Your task to perform on an android device: Clear all items from cart on ebay.com. Search for corsair k70 on ebay.com, select the first entry, add it to the cart, then select checkout. Image 0: 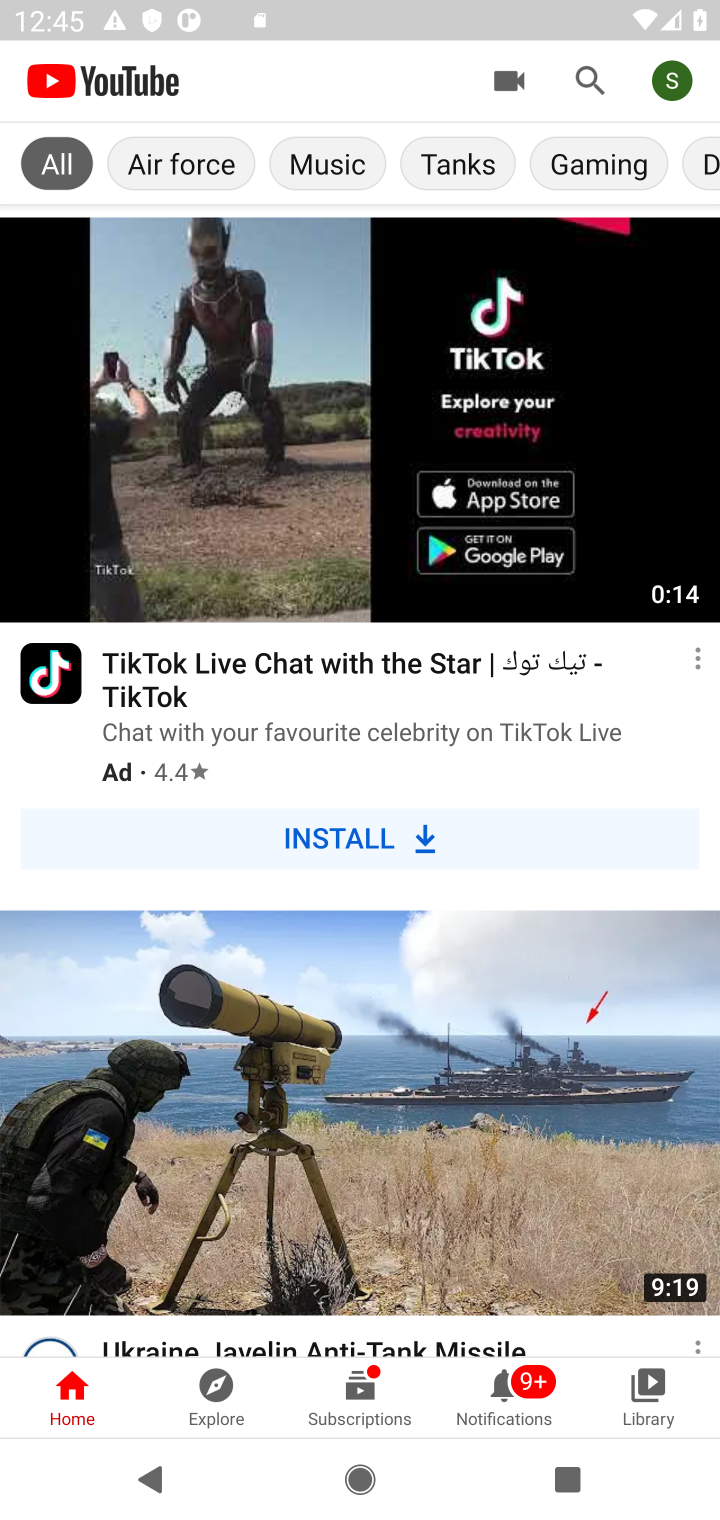
Step 0: press home button
Your task to perform on an android device: Clear all items from cart on ebay.com. Search for corsair k70 on ebay.com, select the first entry, add it to the cart, then select checkout. Image 1: 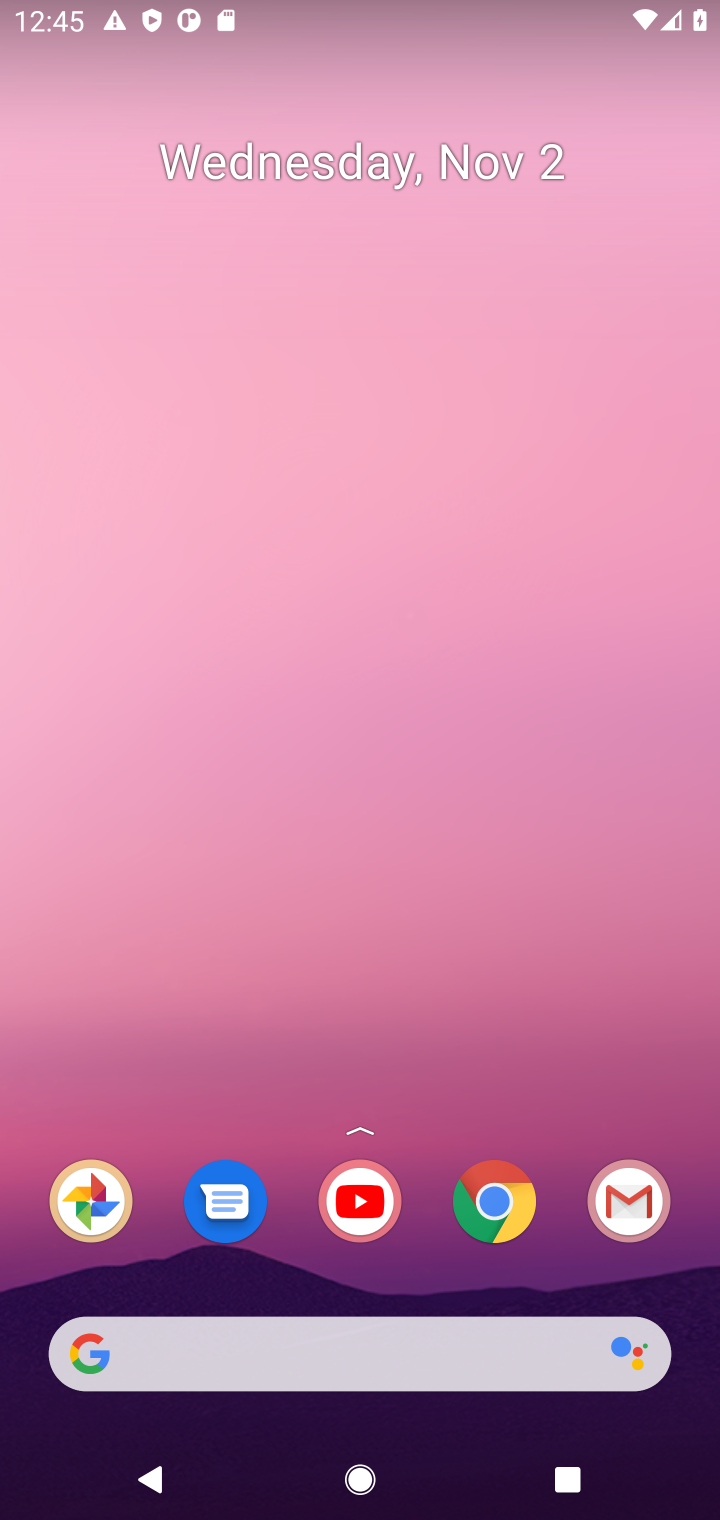
Step 1: drag from (453, 607) to (480, 423)
Your task to perform on an android device: Clear all items from cart on ebay.com. Search for corsair k70 on ebay.com, select the first entry, add it to the cart, then select checkout. Image 2: 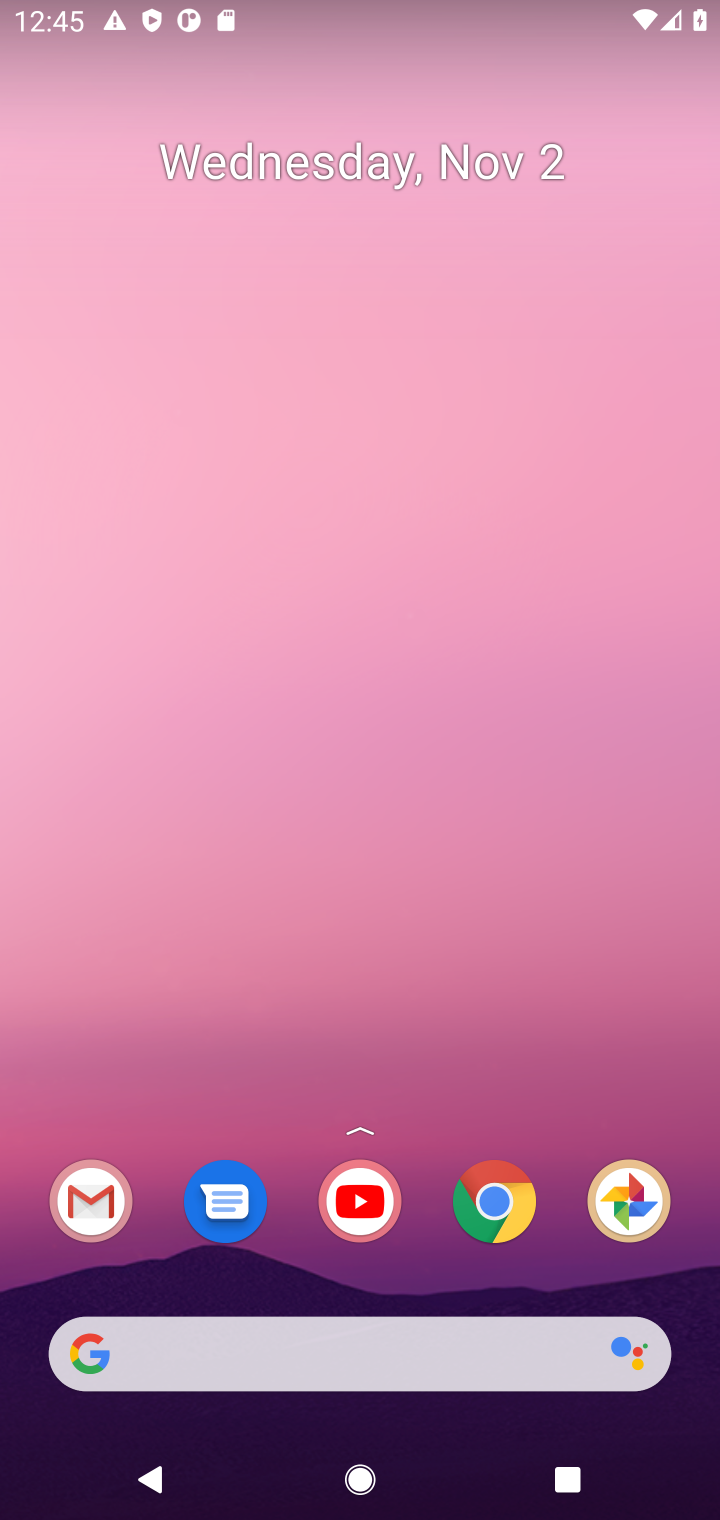
Step 2: drag from (391, 1298) to (424, 19)
Your task to perform on an android device: Clear all items from cart on ebay.com. Search for corsair k70 on ebay.com, select the first entry, add it to the cart, then select checkout. Image 3: 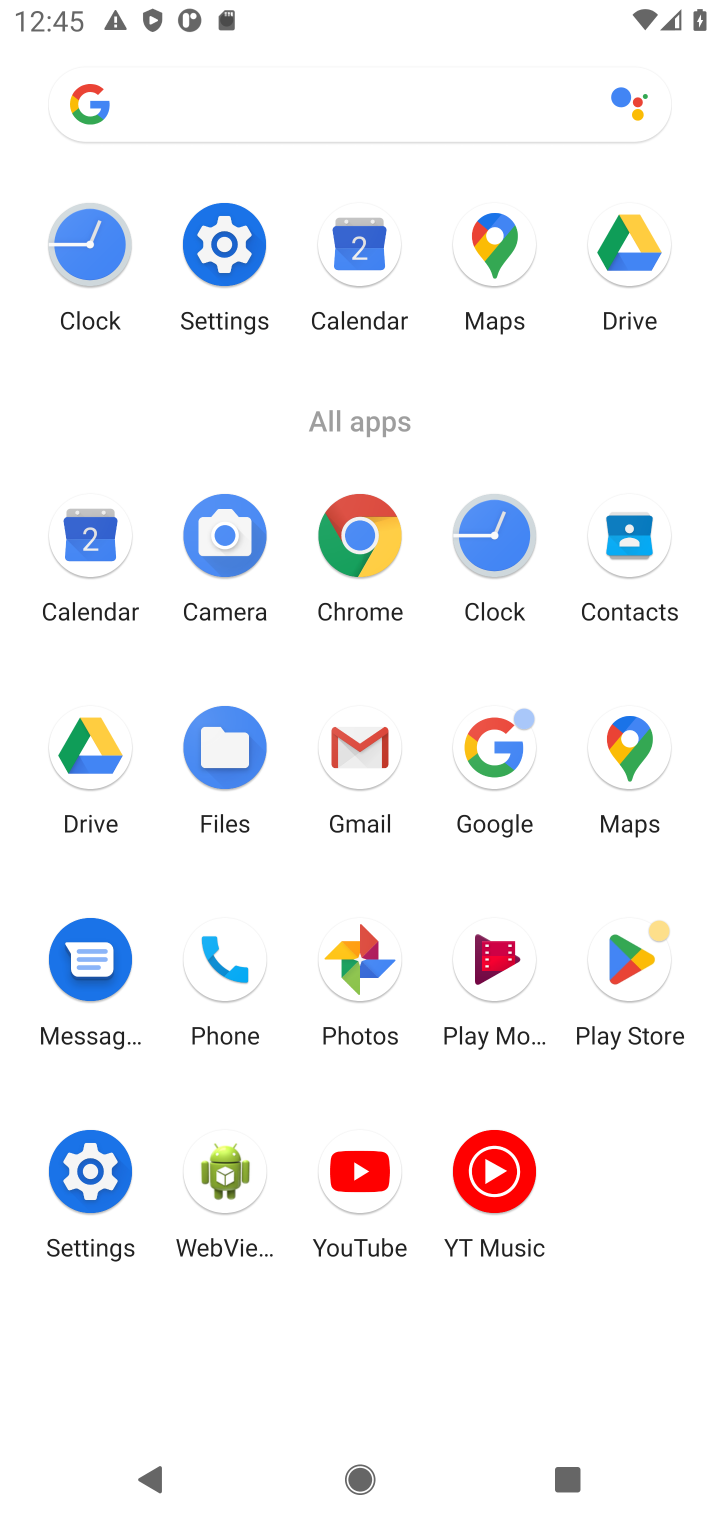
Step 3: click (482, 748)
Your task to perform on an android device: Clear all items from cart on ebay.com. Search for corsair k70 on ebay.com, select the first entry, add it to the cart, then select checkout. Image 4: 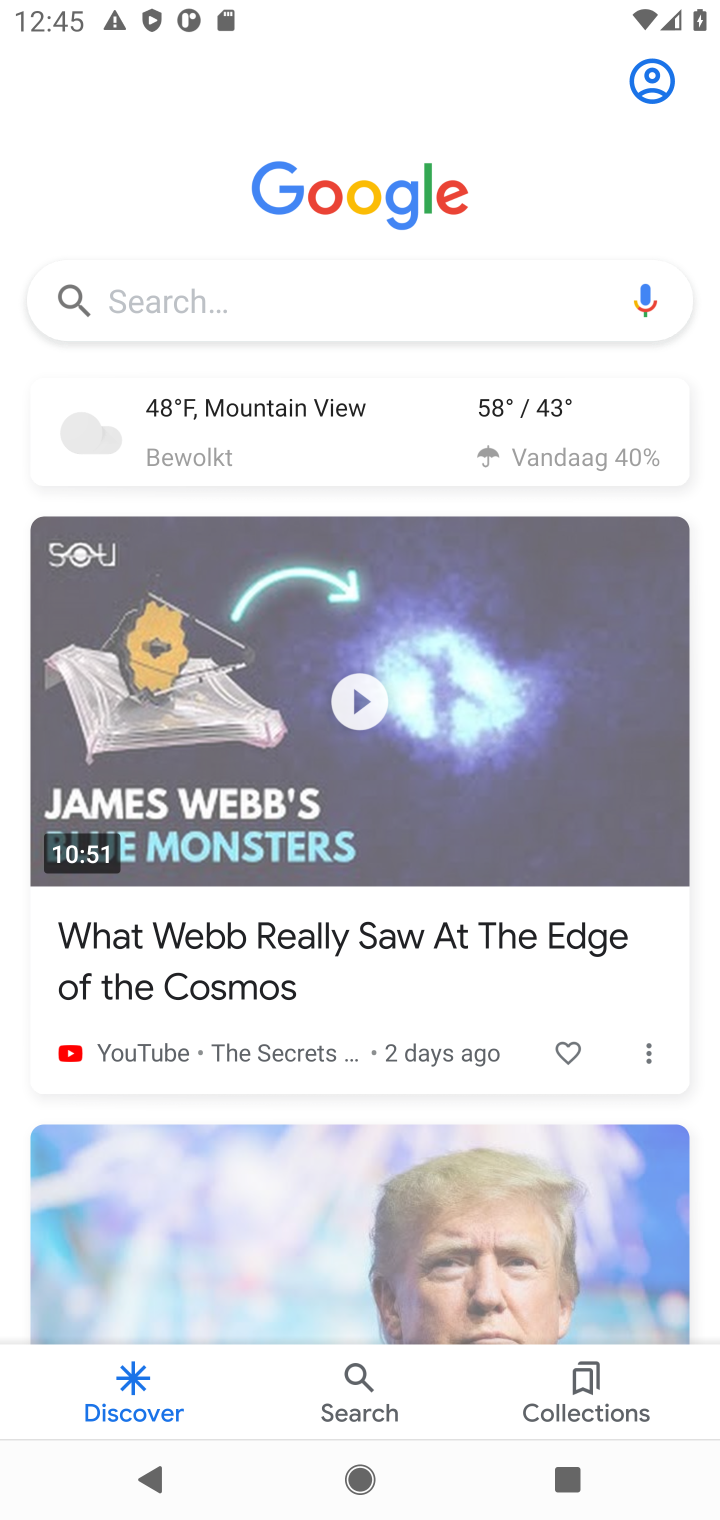
Step 4: click (274, 310)
Your task to perform on an android device: Clear all items from cart on ebay.com. Search for corsair k70 on ebay.com, select the first entry, add it to the cart, then select checkout. Image 5: 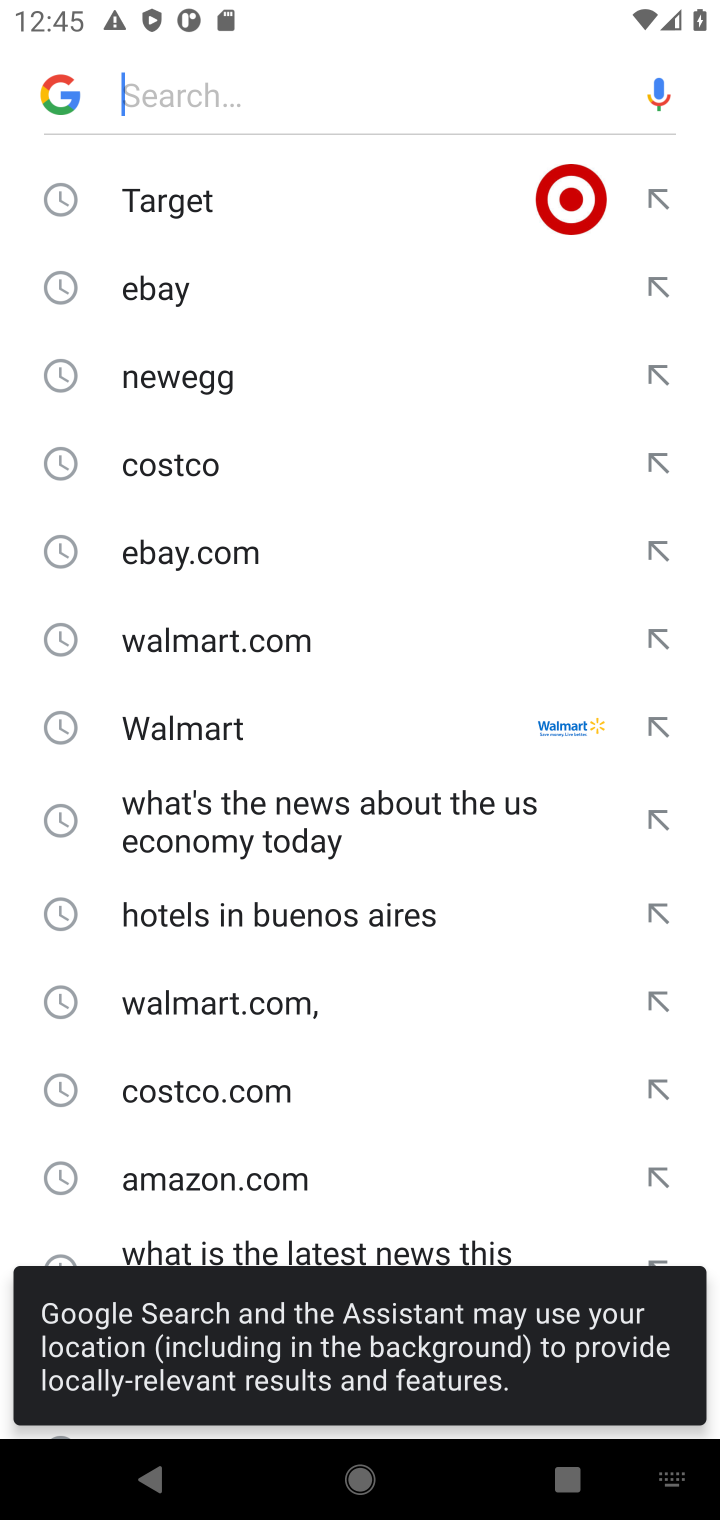
Step 5: click (157, 293)
Your task to perform on an android device: Clear all items from cart on ebay.com. Search for corsair k70 on ebay.com, select the first entry, add it to the cart, then select checkout. Image 6: 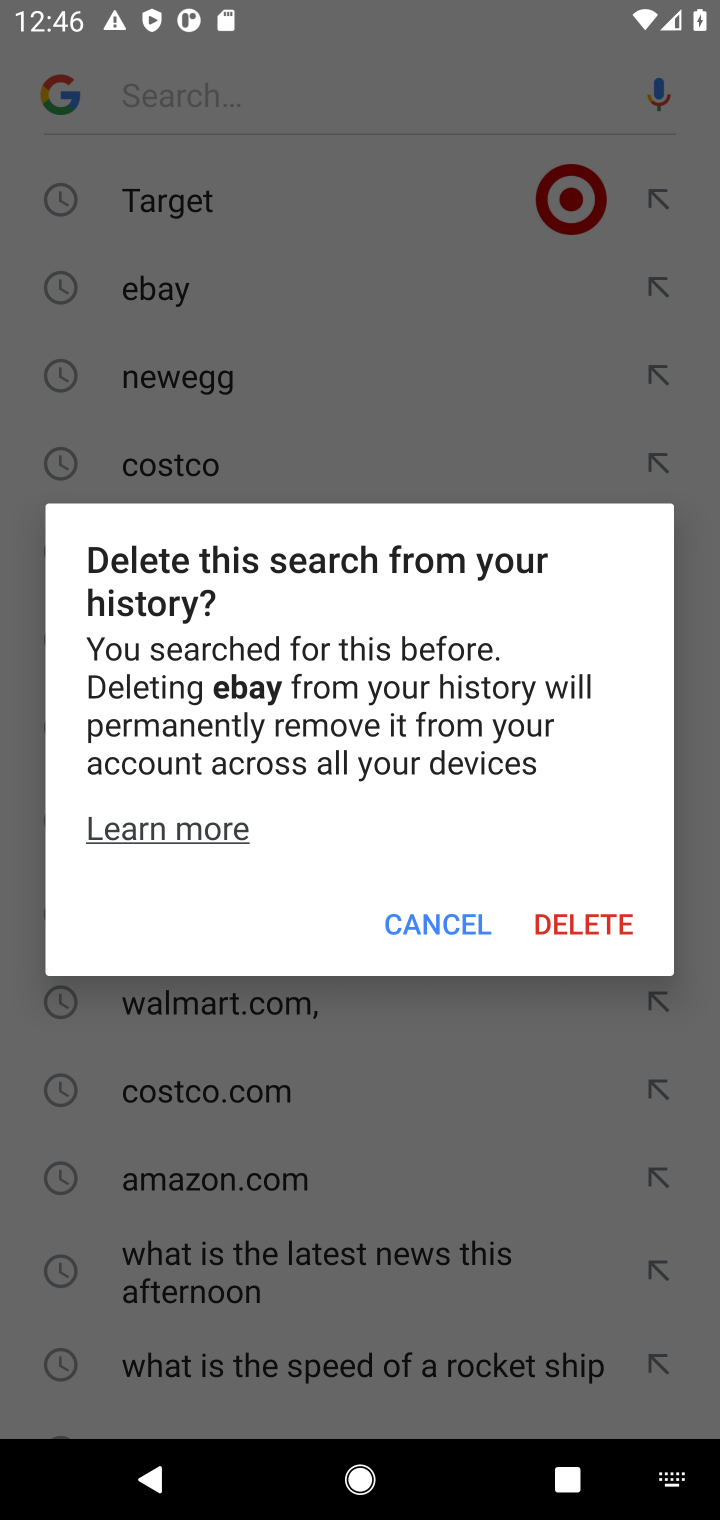
Step 6: click (451, 911)
Your task to perform on an android device: Clear all items from cart on ebay.com. Search for corsair k70 on ebay.com, select the first entry, add it to the cart, then select checkout. Image 7: 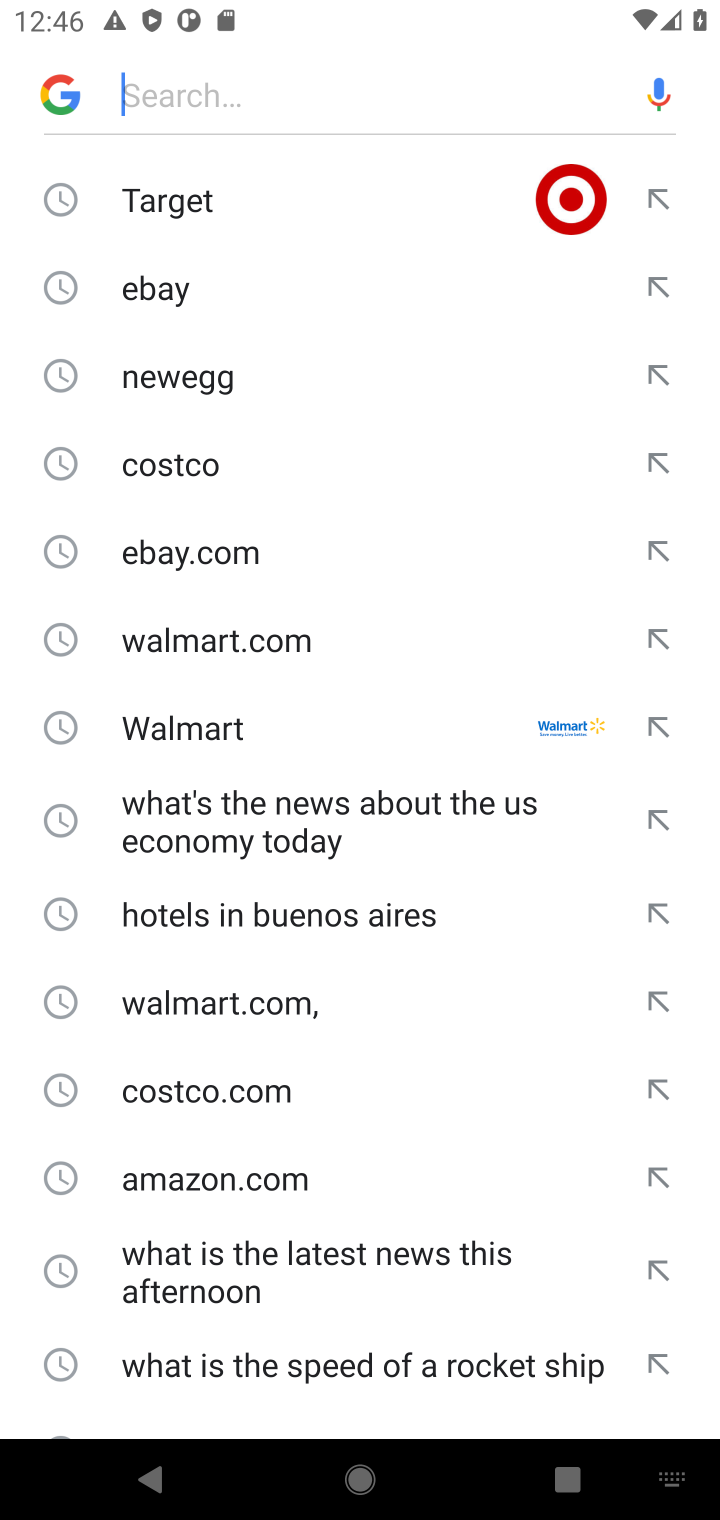
Step 7: click (660, 281)
Your task to perform on an android device: Clear all items from cart on ebay.com. Search for corsair k70 on ebay.com, select the first entry, add it to the cart, then select checkout. Image 8: 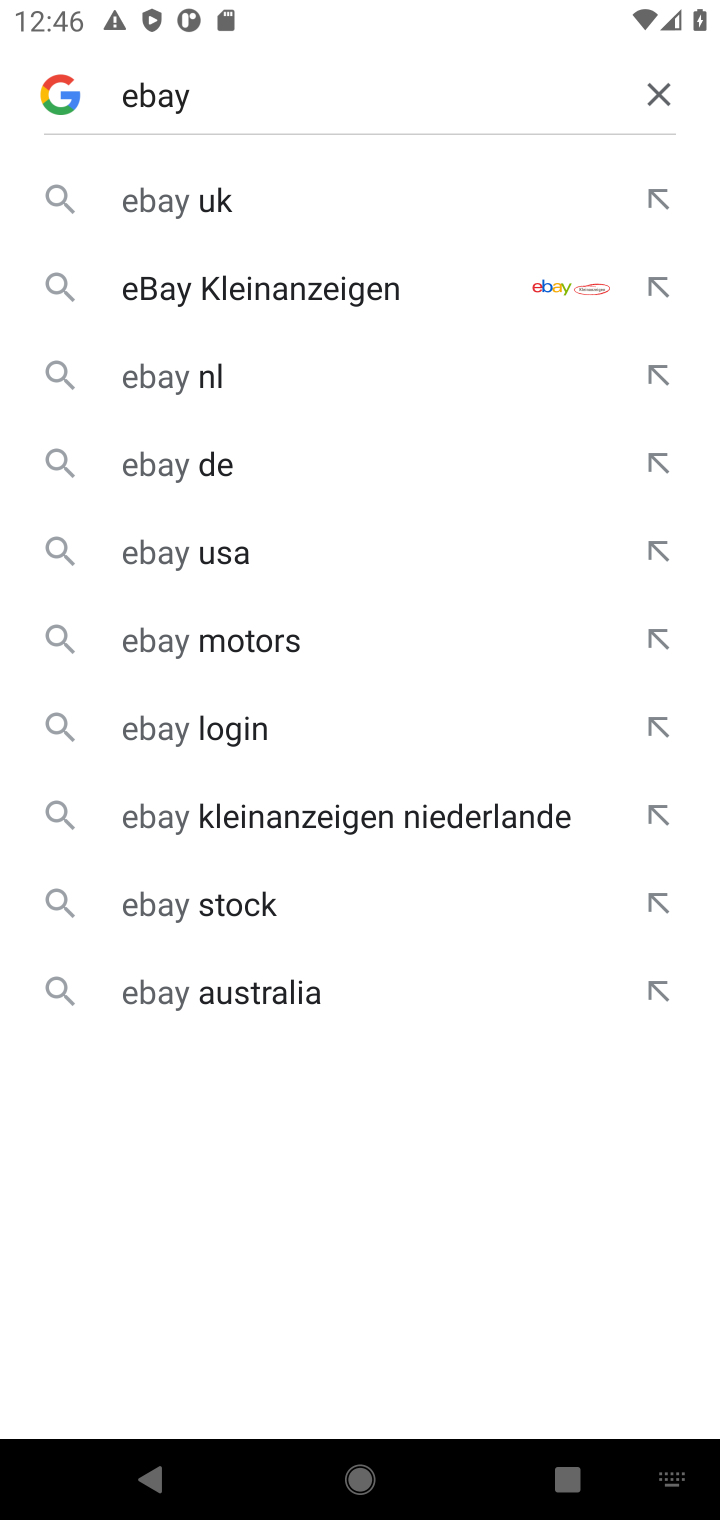
Step 8: click (138, 183)
Your task to perform on an android device: Clear all items from cart on ebay.com. Search for corsair k70 on ebay.com, select the first entry, add it to the cart, then select checkout. Image 9: 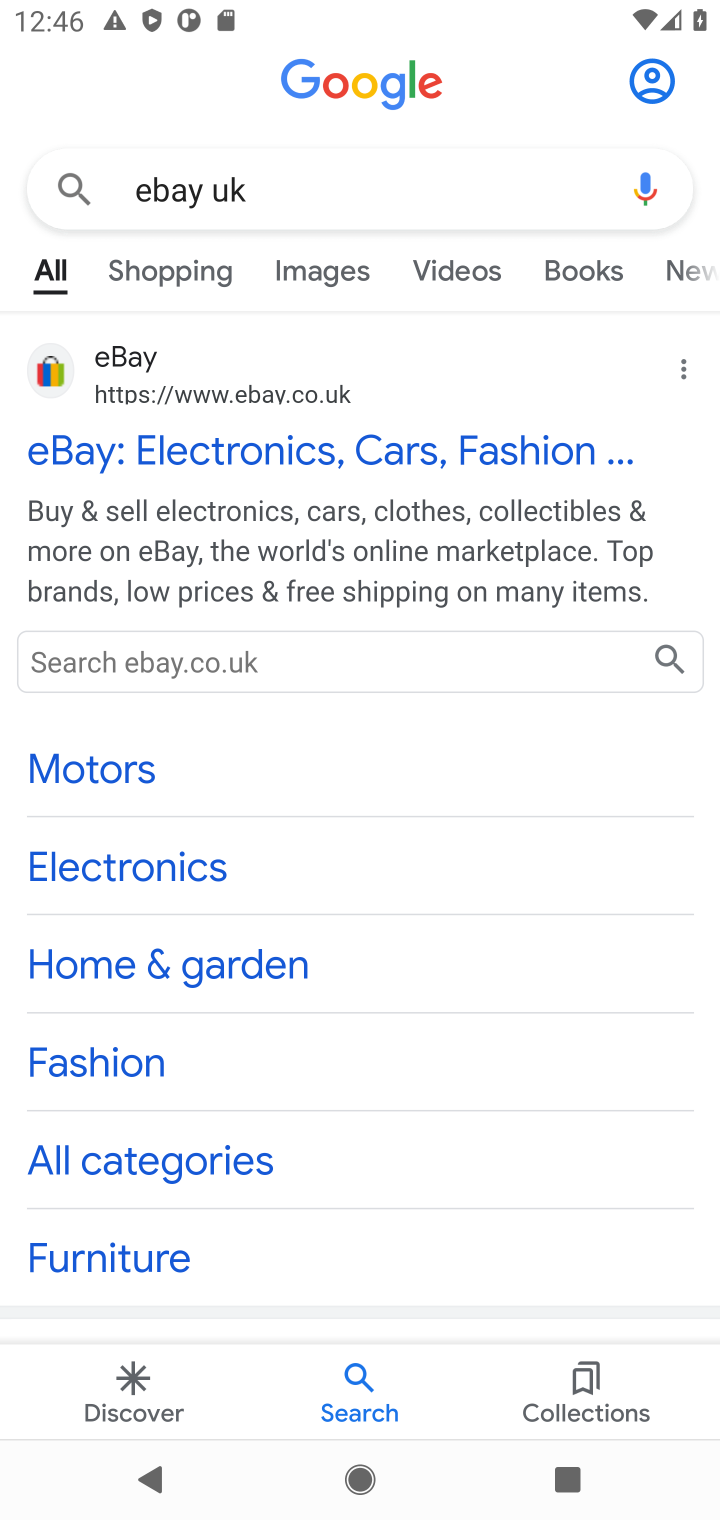
Step 9: click (156, 445)
Your task to perform on an android device: Clear all items from cart on ebay.com. Search for corsair k70 on ebay.com, select the first entry, add it to the cart, then select checkout. Image 10: 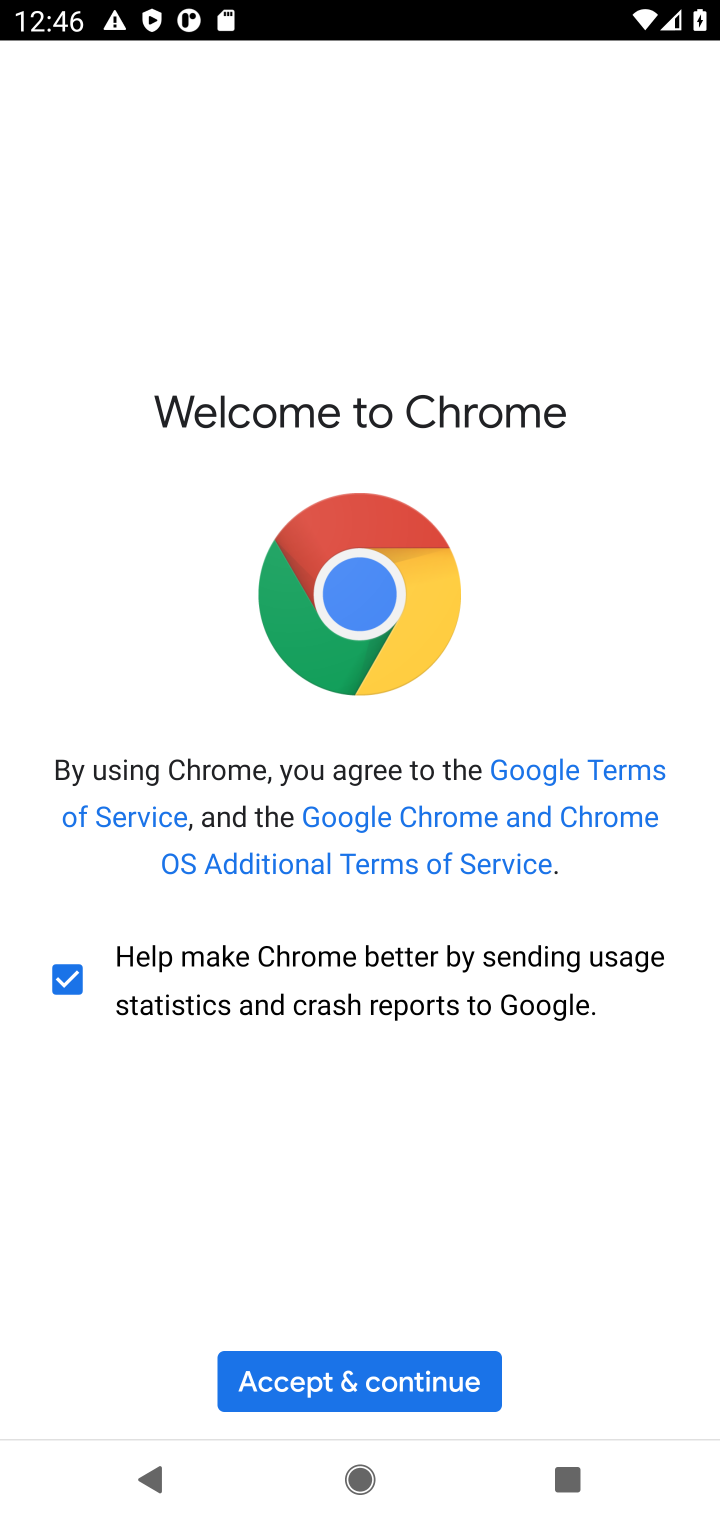
Step 10: click (340, 1369)
Your task to perform on an android device: Clear all items from cart on ebay.com. Search for corsair k70 on ebay.com, select the first entry, add it to the cart, then select checkout. Image 11: 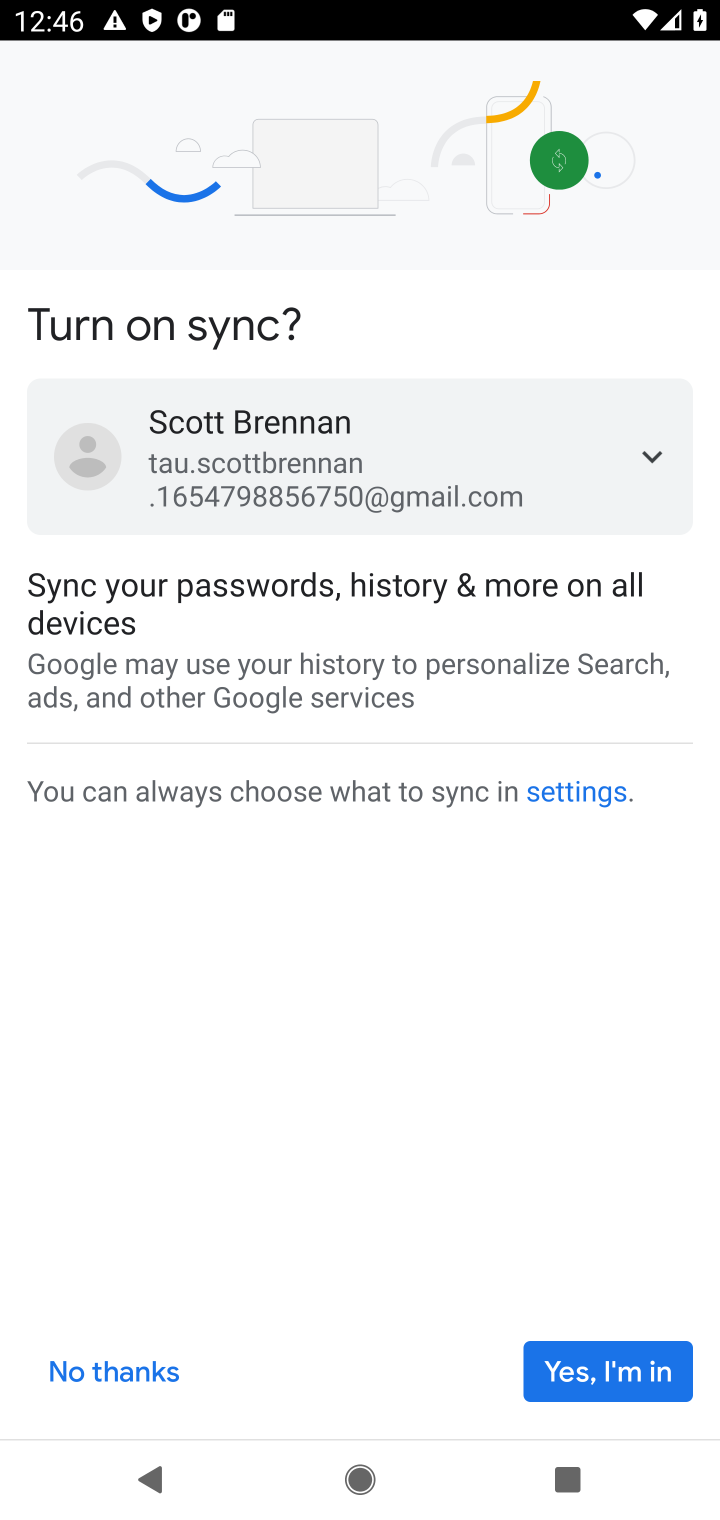
Step 11: click (582, 1356)
Your task to perform on an android device: Clear all items from cart on ebay.com. Search for corsair k70 on ebay.com, select the first entry, add it to the cart, then select checkout. Image 12: 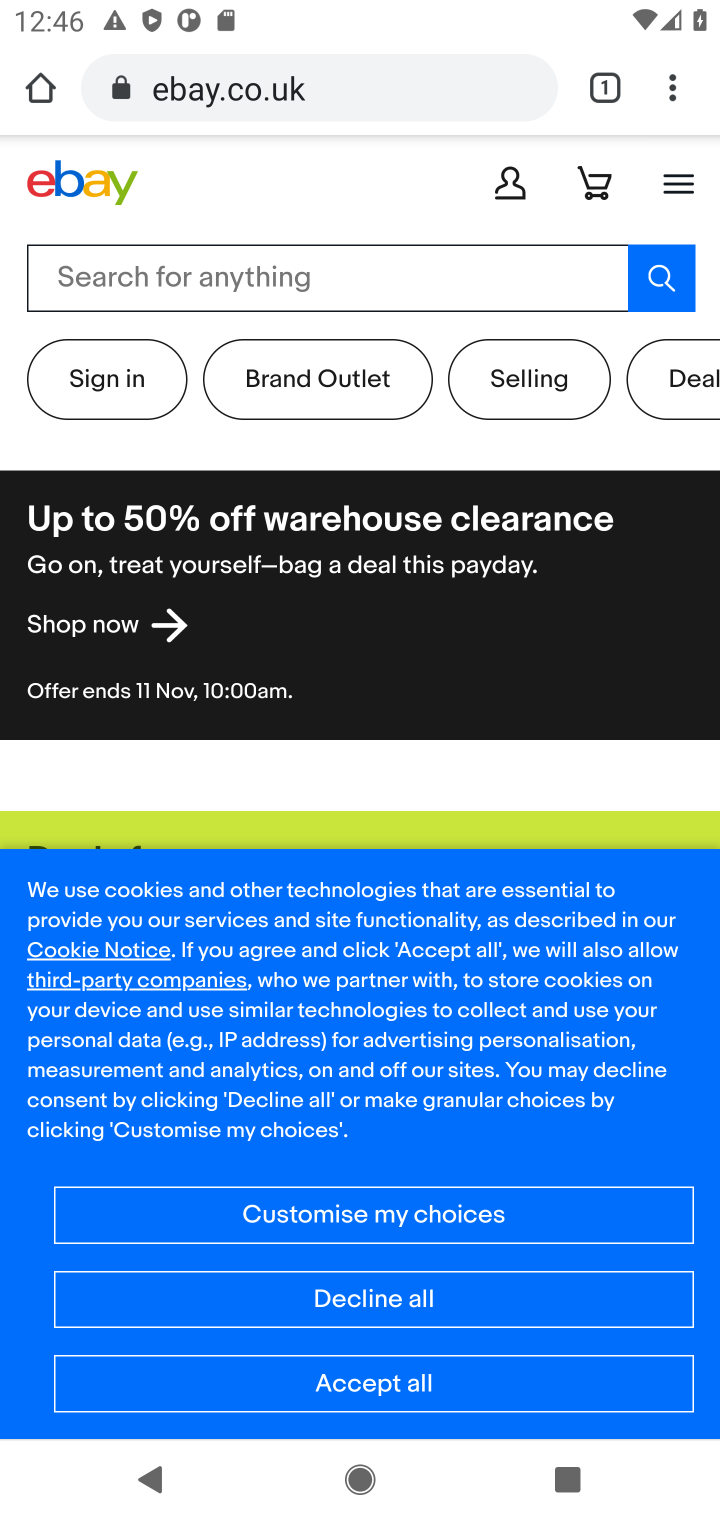
Step 12: click (90, 254)
Your task to perform on an android device: Clear all items from cart on ebay.com. Search for corsair k70 on ebay.com, select the first entry, add it to the cart, then select checkout. Image 13: 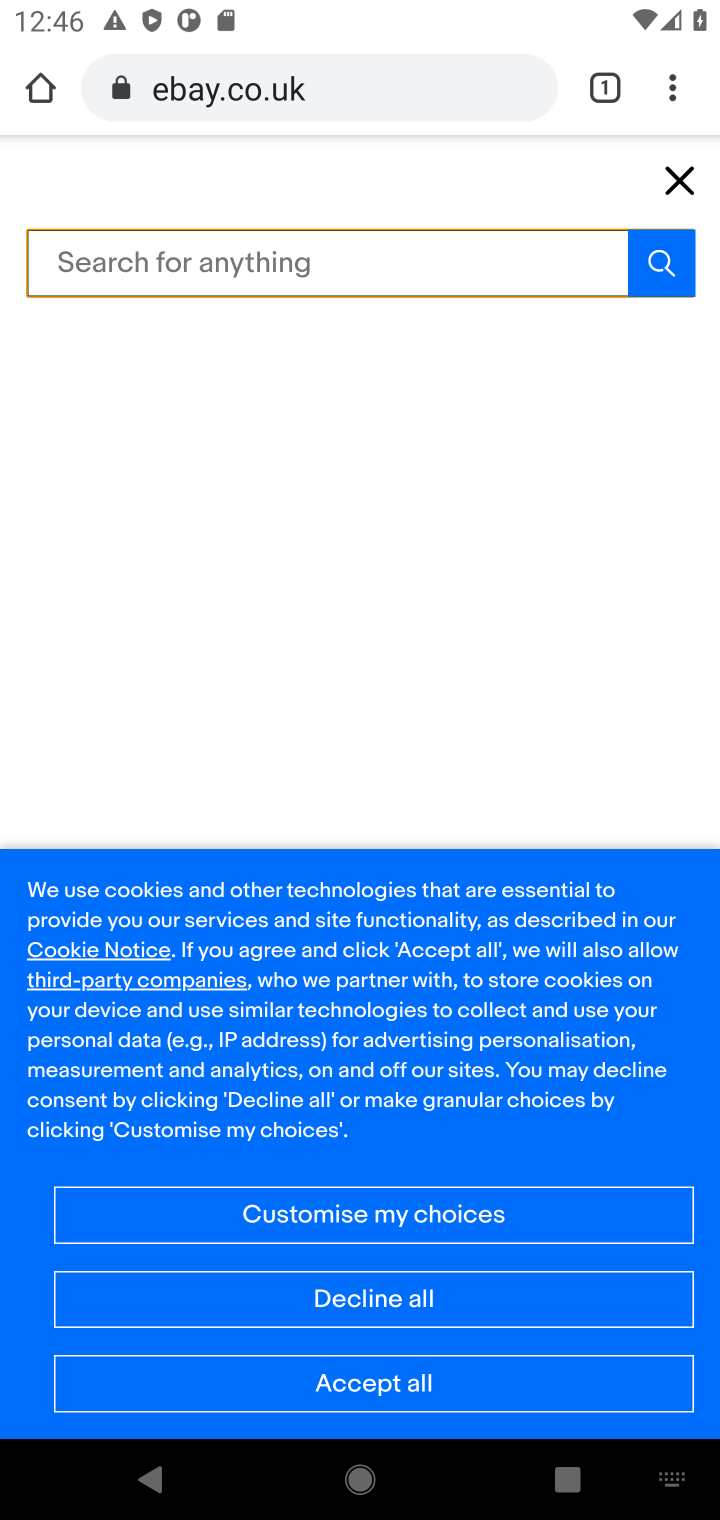
Step 13: type "corsair k70"
Your task to perform on an android device: Clear all items from cart on ebay.com. Search for corsair k70 on ebay.com, select the first entry, add it to the cart, then select checkout. Image 14: 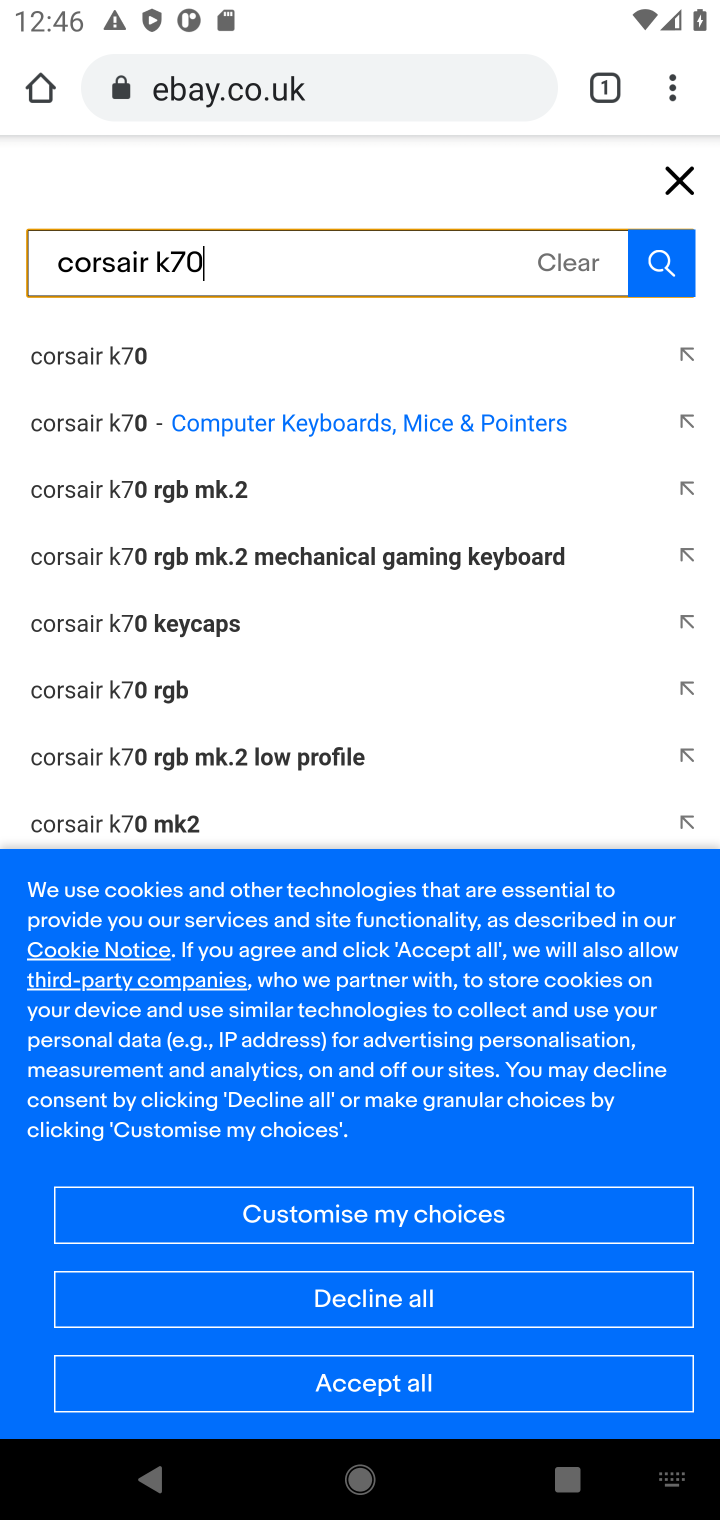
Step 14: click (56, 358)
Your task to perform on an android device: Clear all items from cart on ebay.com. Search for corsair k70 on ebay.com, select the first entry, add it to the cart, then select checkout. Image 15: 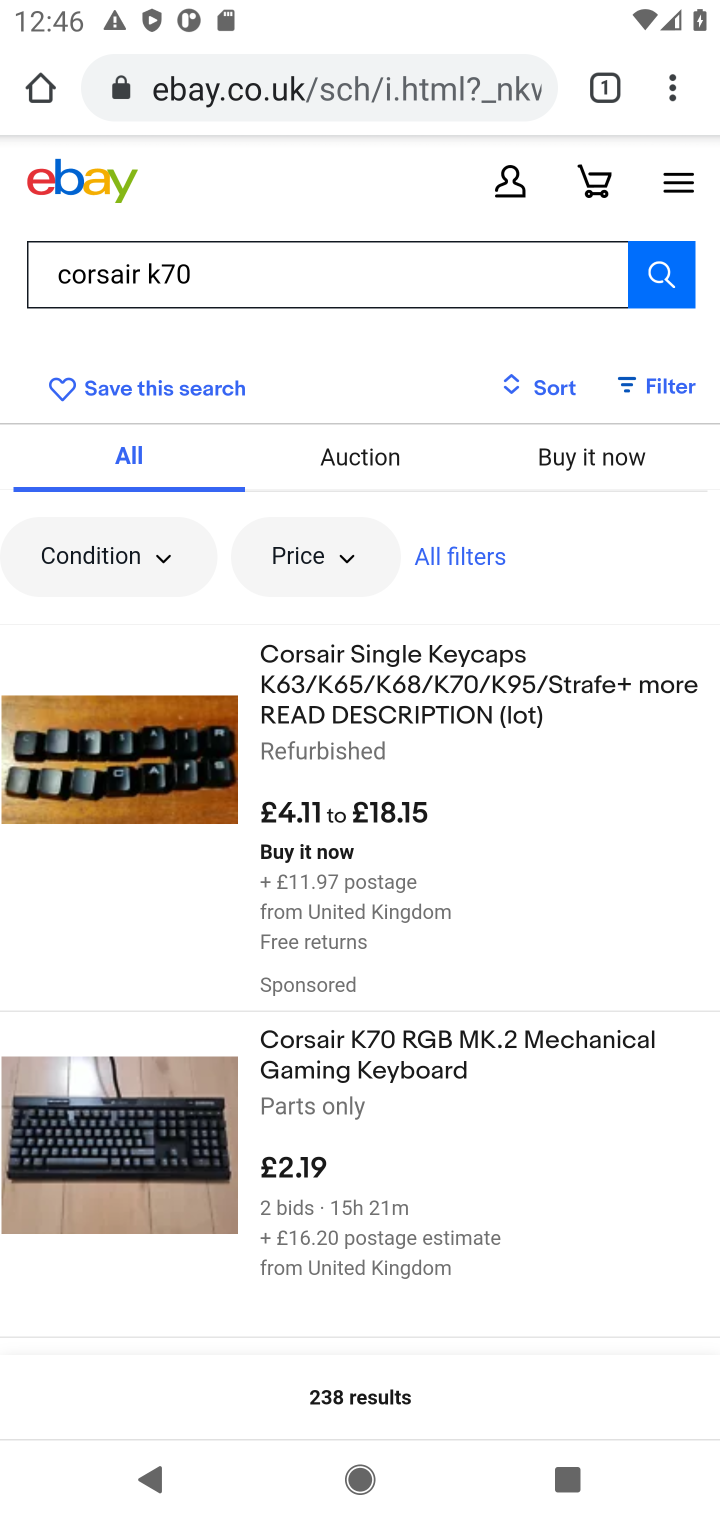
Step 15: click (113, 750)
Your task to perform on an android device: Clear all items from cart on ebay.com. Search for corsair k70 on ebay.com, select the first entry, add it to the cart, then select checkout. Image 16: 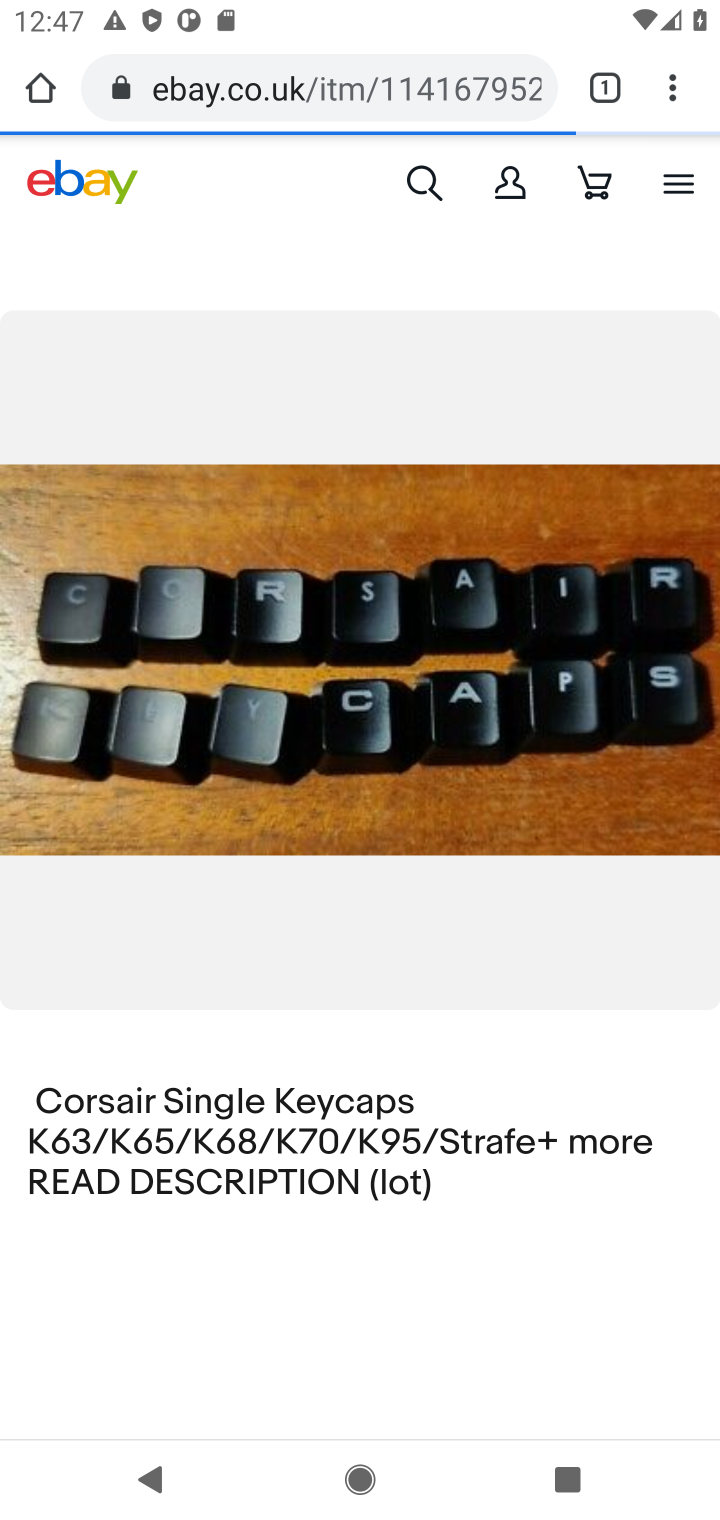
Step 16: drag from (376, 1240) to (263, 600)
Your task to perform on an android device: Clear all items from cart on ebay.com. Search for corsair k70 on ebay.com, select the first entry, add it to the cart, then select checkout. Image 17: 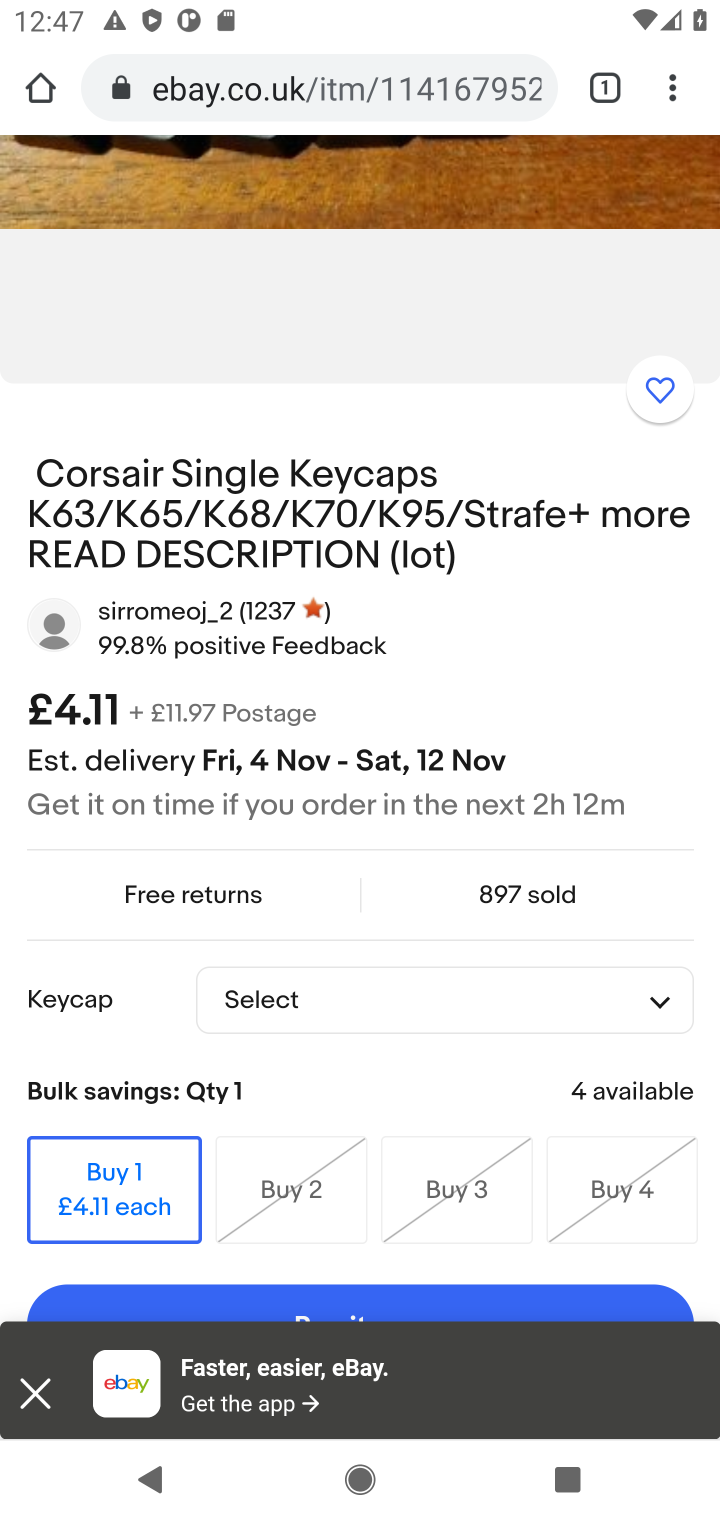
Step 17: drag from (350, 1272) to (323, 811)
Your task to perform on an android device: Clear all items from cart on ebay.com. Search for corsair k70 on ebay.com, select the first entry, add it to the cart, then select checkout. Image 18: 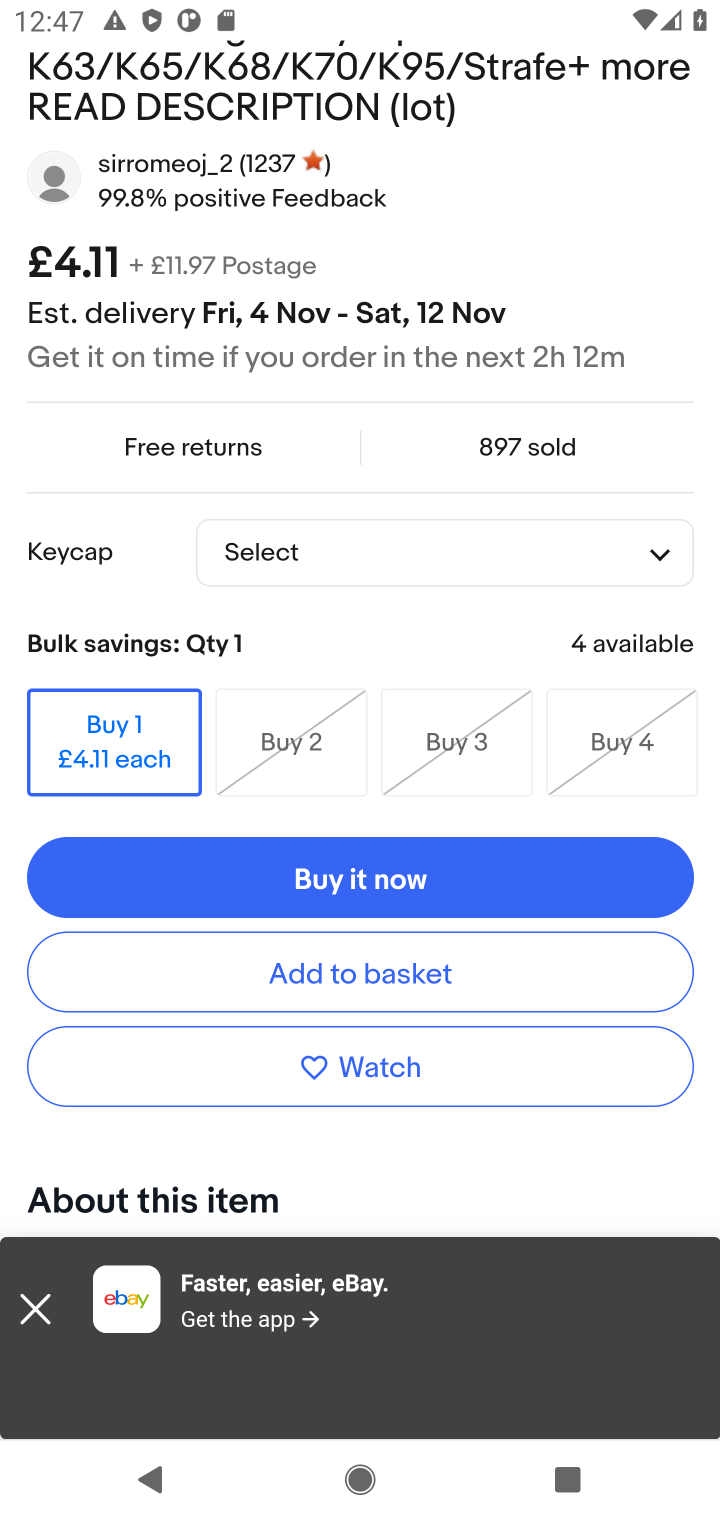
Step 18: click (358, 976)
Your task to perform on an android device: Clear all items from cart on ebay.com. Search for corsair k70 on ebay.com, select the first entry, add it to the cart, then select checkout. Image 19: 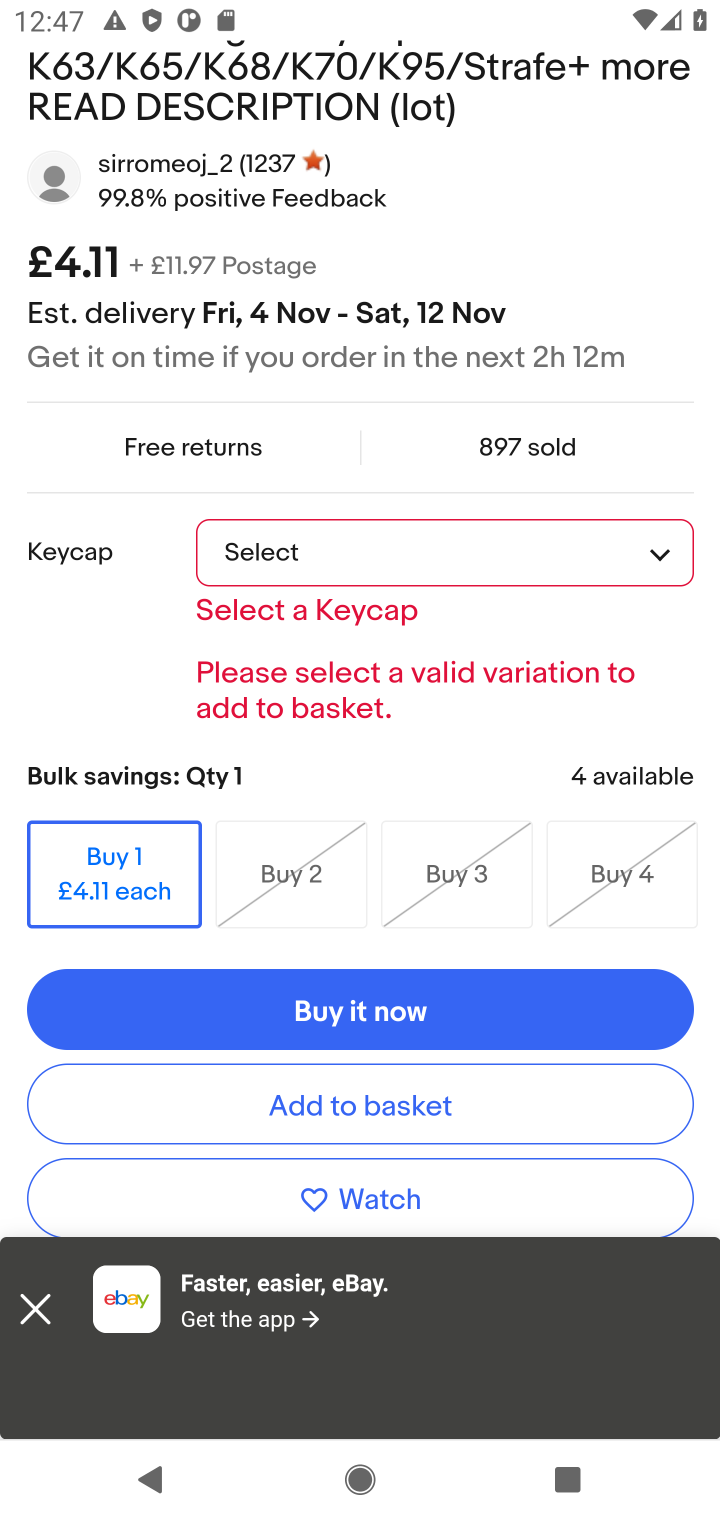
Step 19: click (380, 1098)
Your task to perform on an android device: Clear all items from cart on ebay.com. Search for corsair k70 on ebay.com, select the first entry, add it to the cart, then select checkout. Image 20: 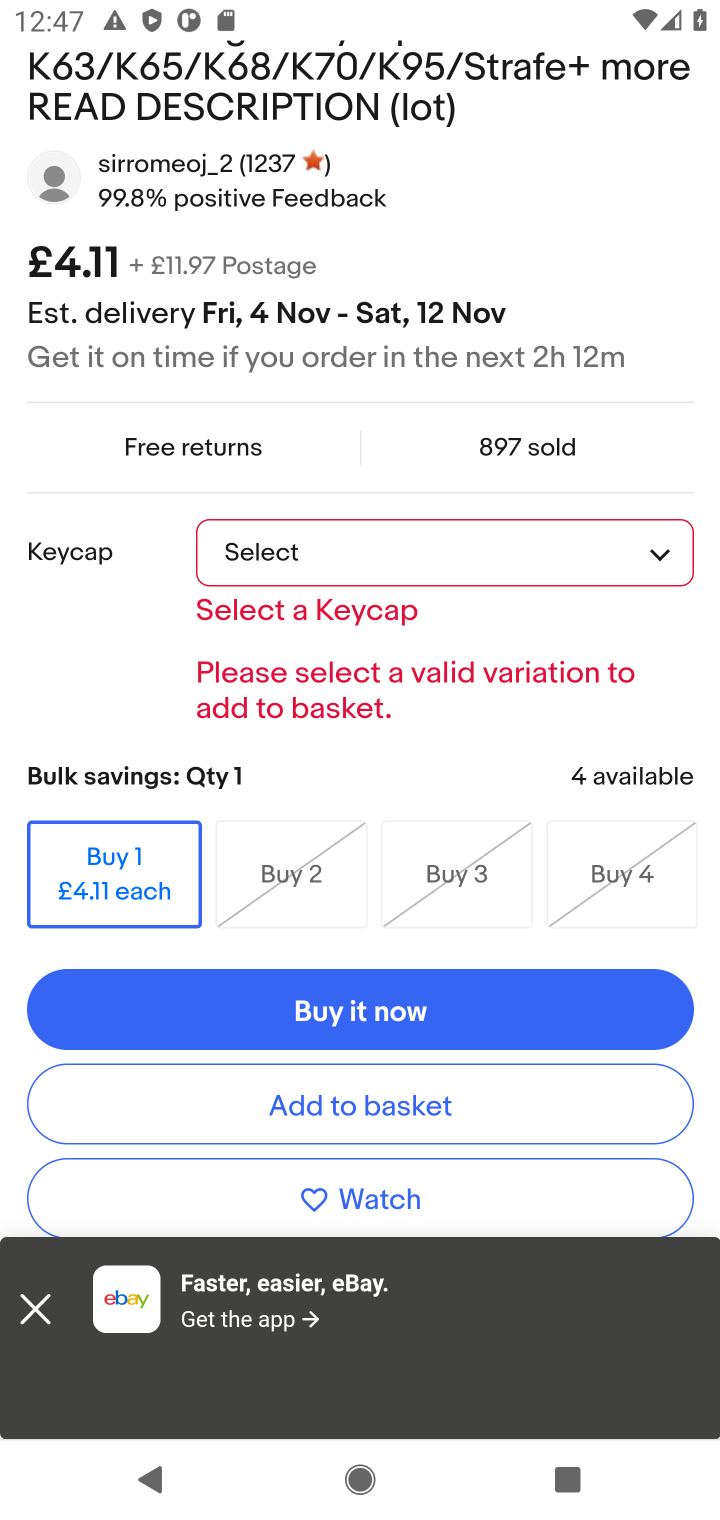
Step 20: click (380, 1098)
Your task to perform on an android device: Clear all items from cart on ebay.com. Search for corsair k70 on ebay.com, select the first entry, add it to the cart, then select checkout. Image 21: 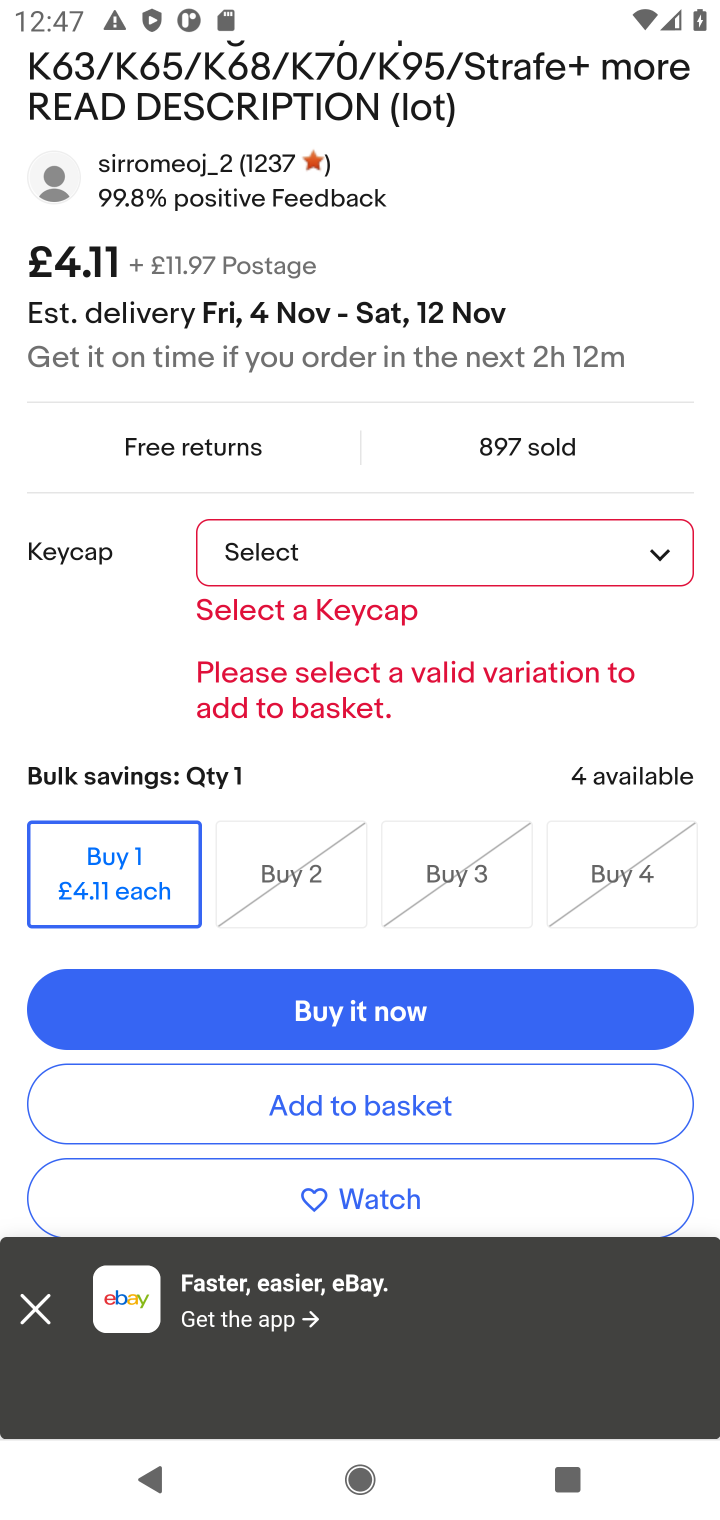
Step 21: click (389, 1110)
Your task to perform on an android device: Clear all items from cart on ebay.com. Search for corsair k70 on ebay.com, select the first entry, add it to the cart, then select checkout. Image 22: 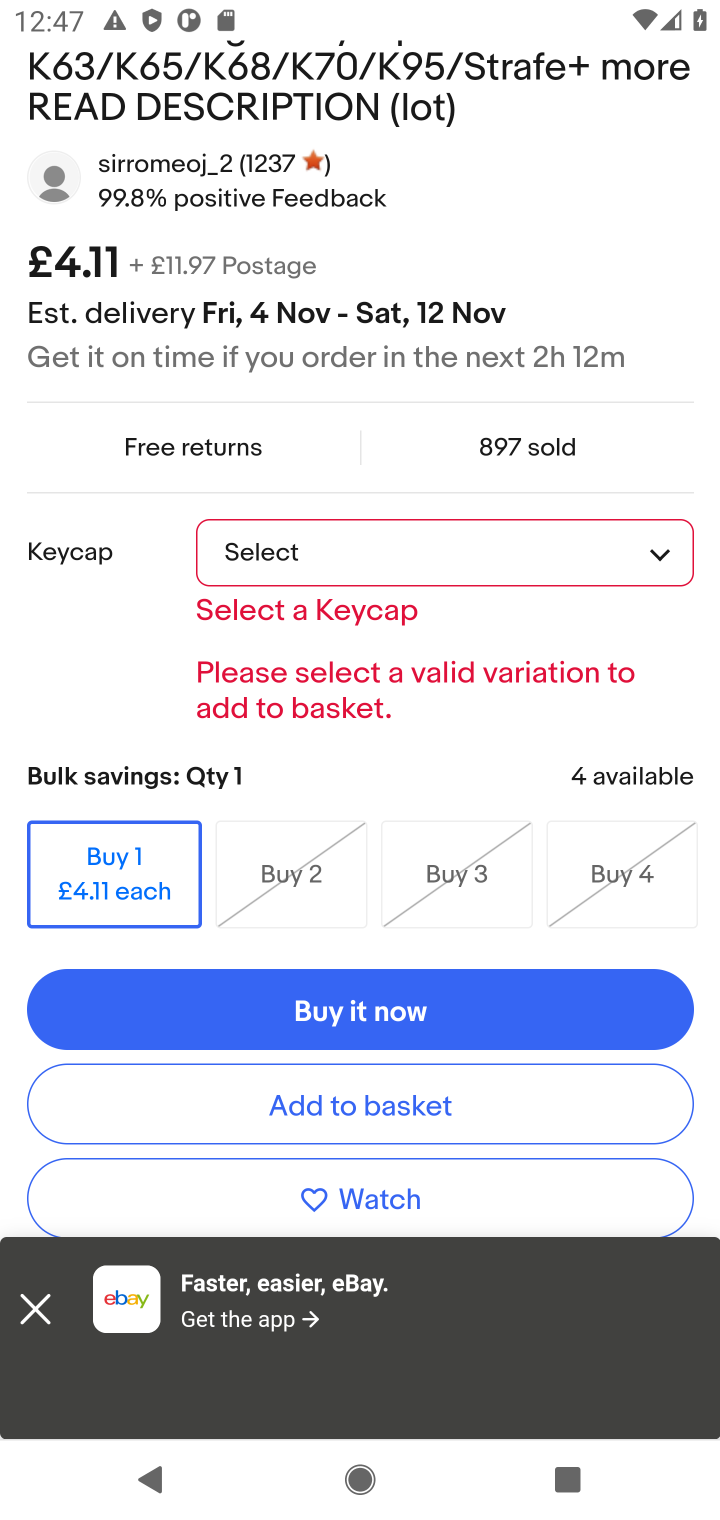
Step 22: click (31, 1303)
Your task to perform on an android device: Clear all items from cart on ebay.com. Search for corsair k70 on ebay.com, select the first entry, add it to the cart, then select checkout. Image 23: 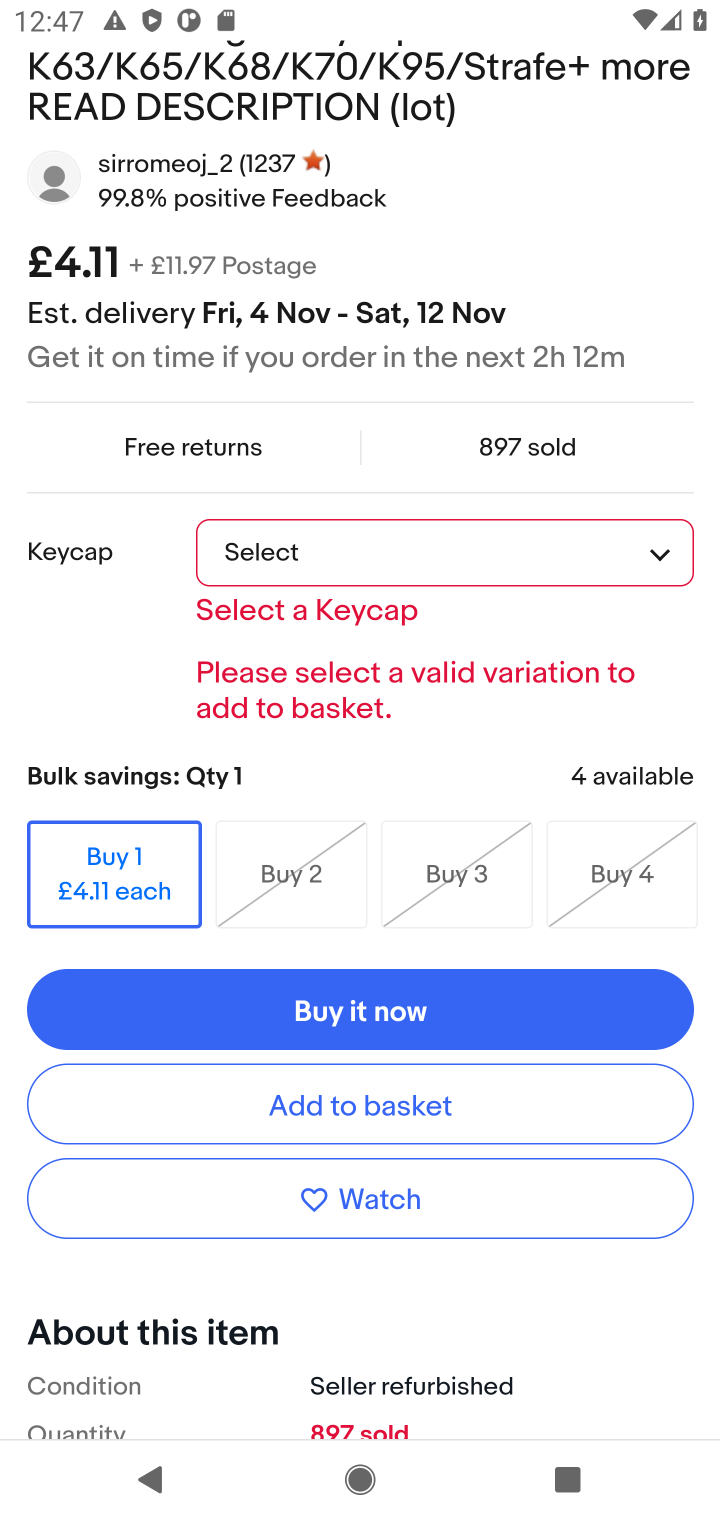
Step 23: click (216, 1101)
Your task to perform on an android device: Clear all items from cart on ebay.com. Search for corsair k70 on ebay.com, select the first entry, add it to the cart, then select checkout. Image 24: 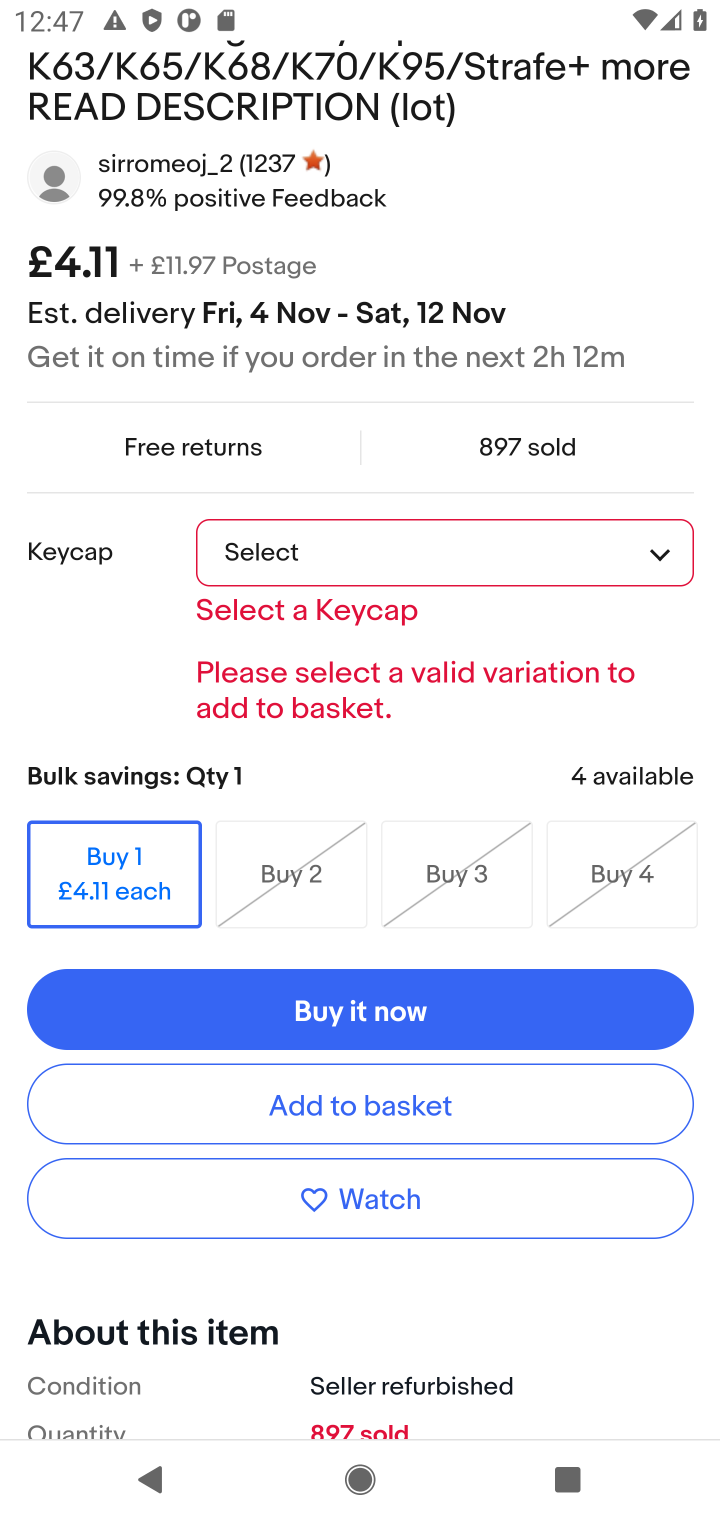
Step 24: click (386, 1128)
Your task to perform on an android device: Clear all items from cart on ebay.com. Search for corsair k70 on ebay.com, select the first entry, add it to the cart, then select checkout. Image 25: 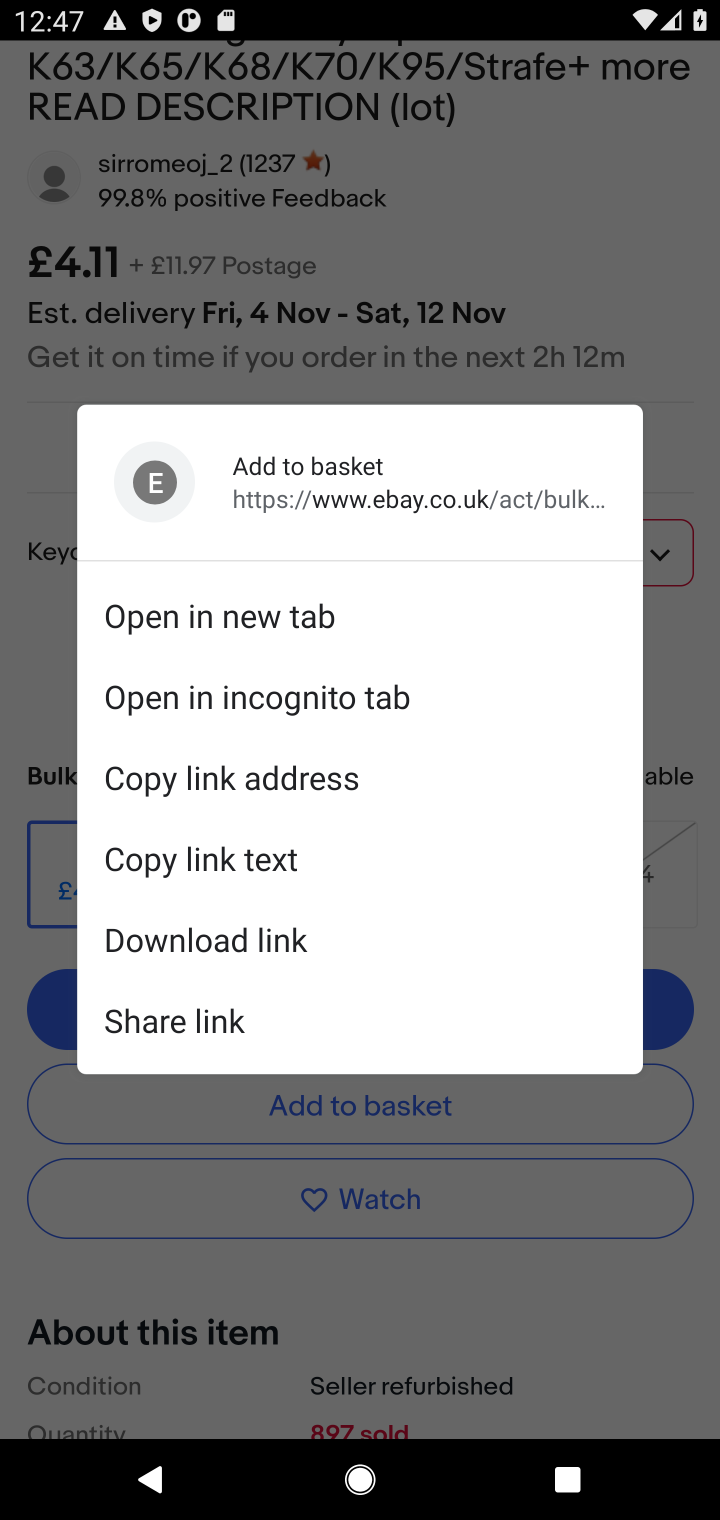
Step 25: click (19, 1047)
Your task to perform on an android device: Clear all items from cart on ebay.com. Search for corsair k70 on ebay.com, select the first entry, add it to the cart, then select checkout. Image 26: 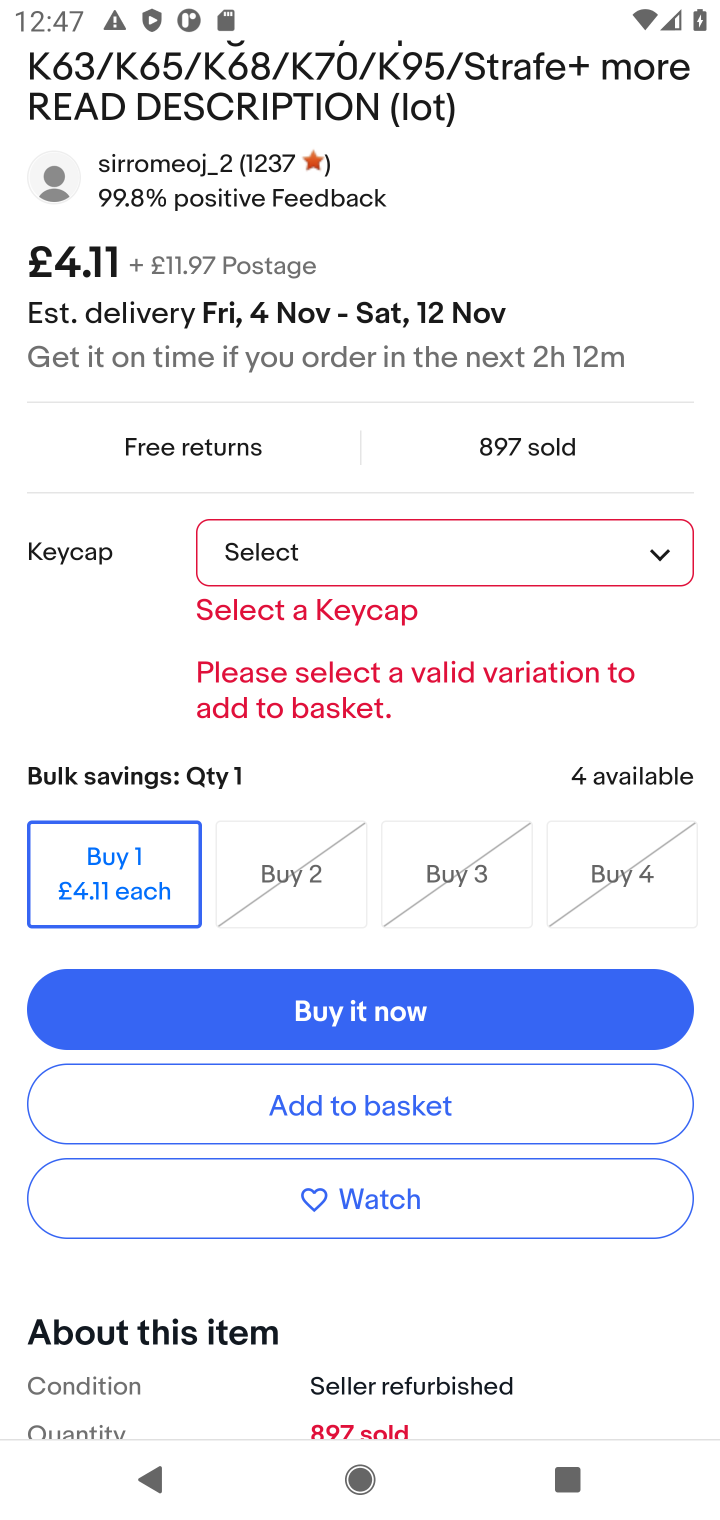
Step 26: task complete